Your task to perform on an android device: turn on location history Image 0: 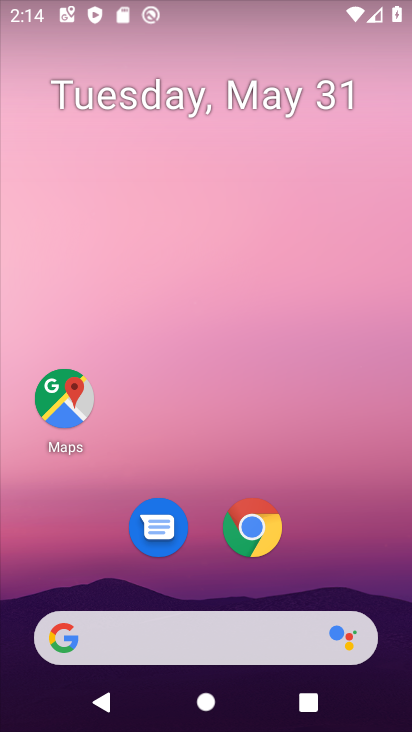
Step 0: drag from (364, 507) to (411, 26)
Your task to perform on an android device: turn on location history Image 1: 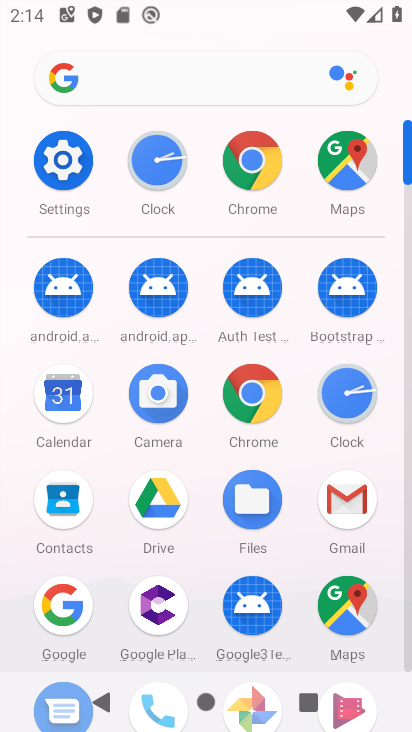
Step 1: click (62, 155)
Your task to perform on an android device: turn on location history Image 2: 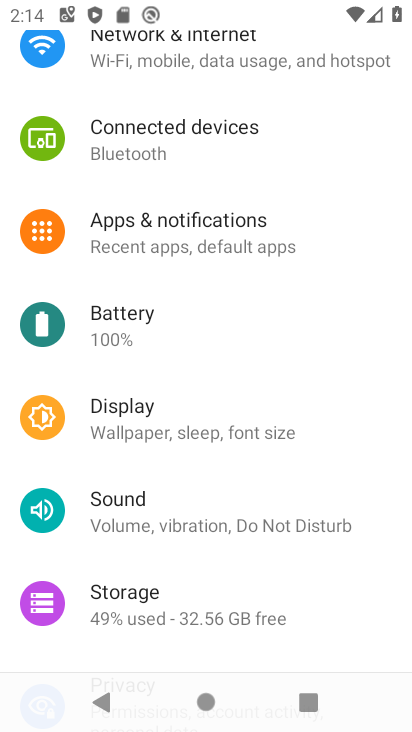
Step 2: drag from (297, 520) to (307, 148)
Your task to perform on an android device: turn on location history Image 3: 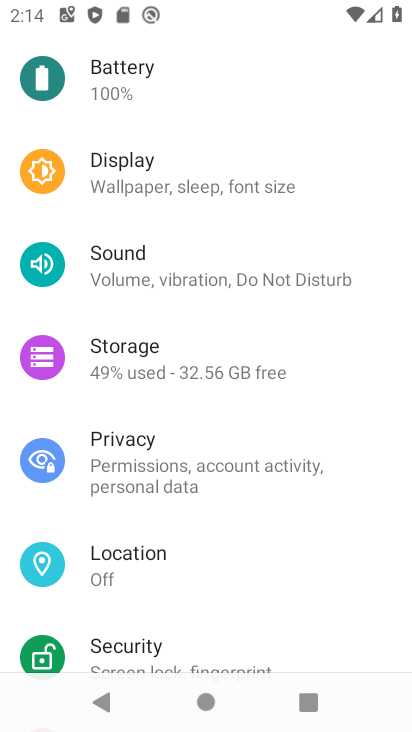
Step 3: click (153, 561)
Your task to perform on an android device: turn on location history Image 4: 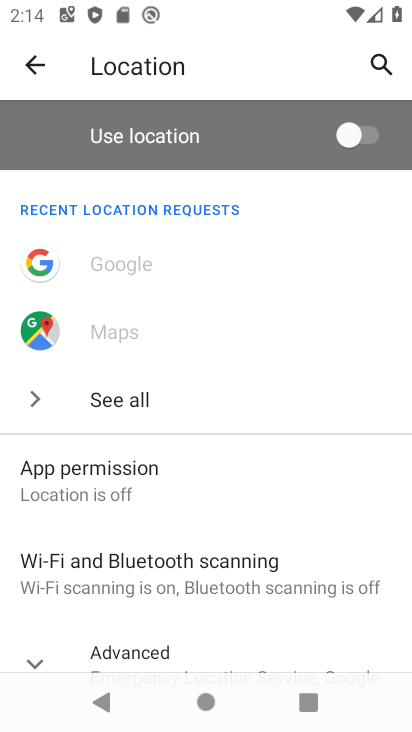
Step 4: drag from (263, 532) to (273, 247)
Your task to perform on an android device: turn on location history Image 5: 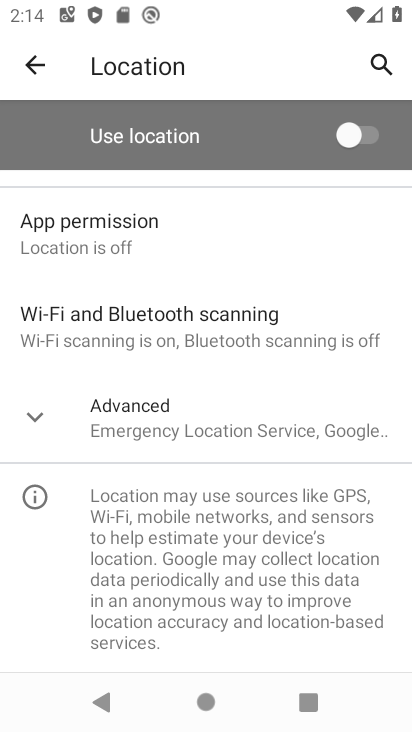
Step 5: click (179, 418)
Your task to perform on an android device: turn on location history Image 6: 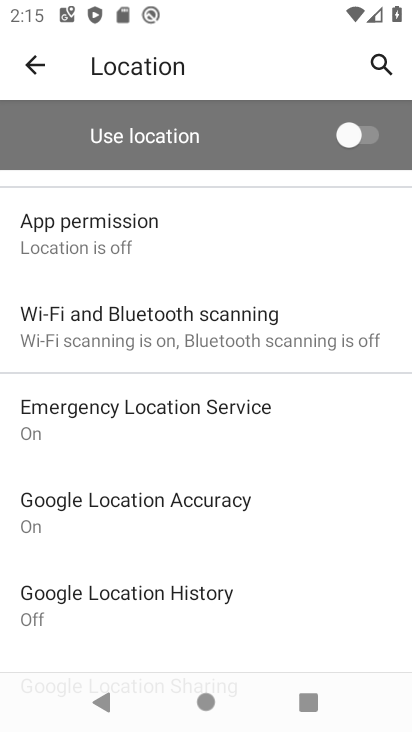
Step 6: drag from (237, 573) to (255, 327)
Your task to perform on an android device: turn on location history Image 7: 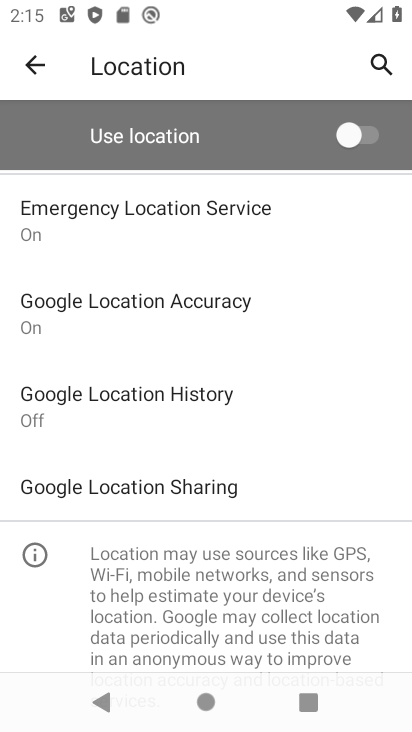
Step 7: click (176, 408)
Your task to perform on an android device: turn on location history Image 8: 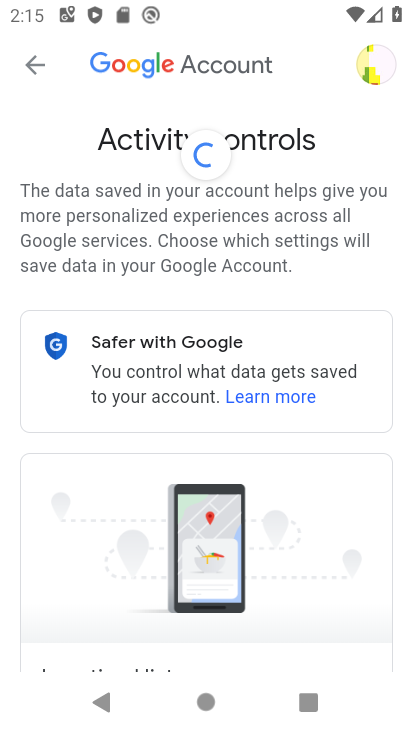
Step 8: task complete